Your task to perform on an android device: open app "Reddit" (install if not already installed), go to login, and select forgot password Image 0: 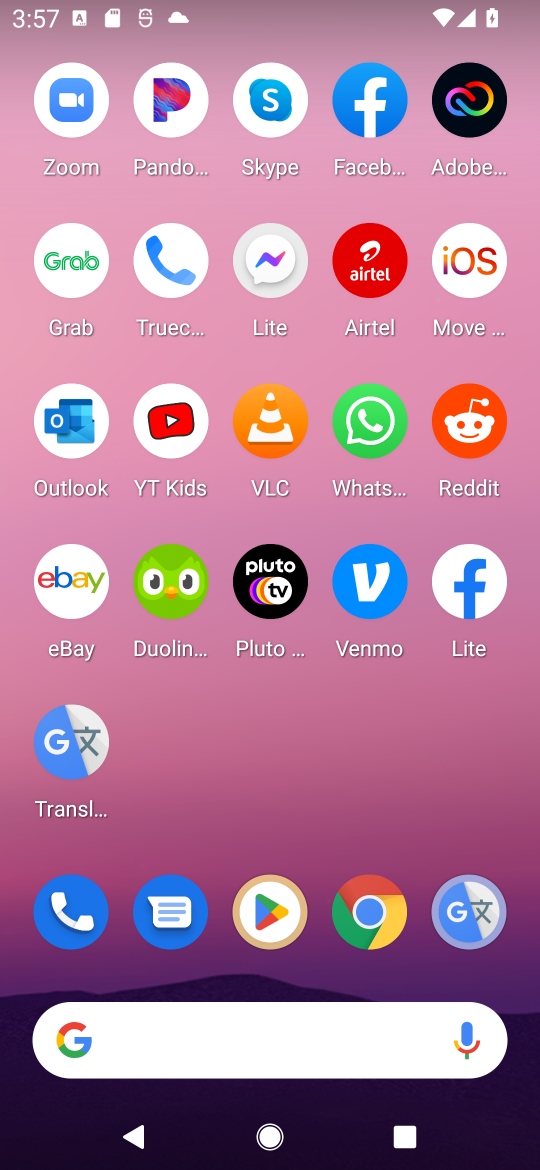
Step 0: drag from (230, 1060) to (284, 75)
Your task to perform on an android device: open app "Reddit" (install if not already installed), go to login, and select forgot password Image 1: 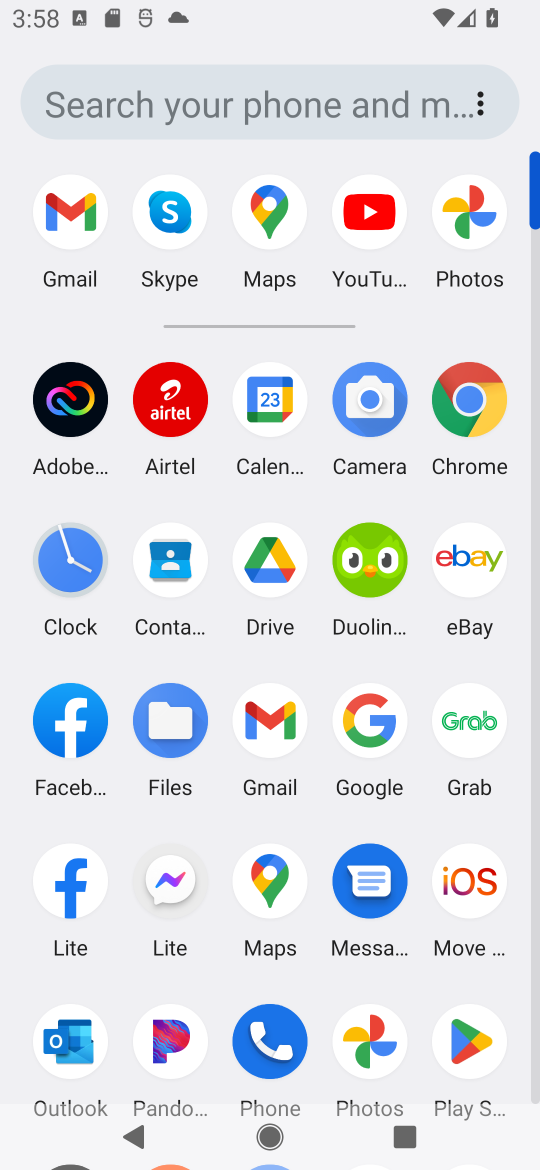
Step 1: click (473, 1044)
Your task to perform on an android device: open app "Reddit" (install if not already installed), go to login, and select forgot password Image 2: 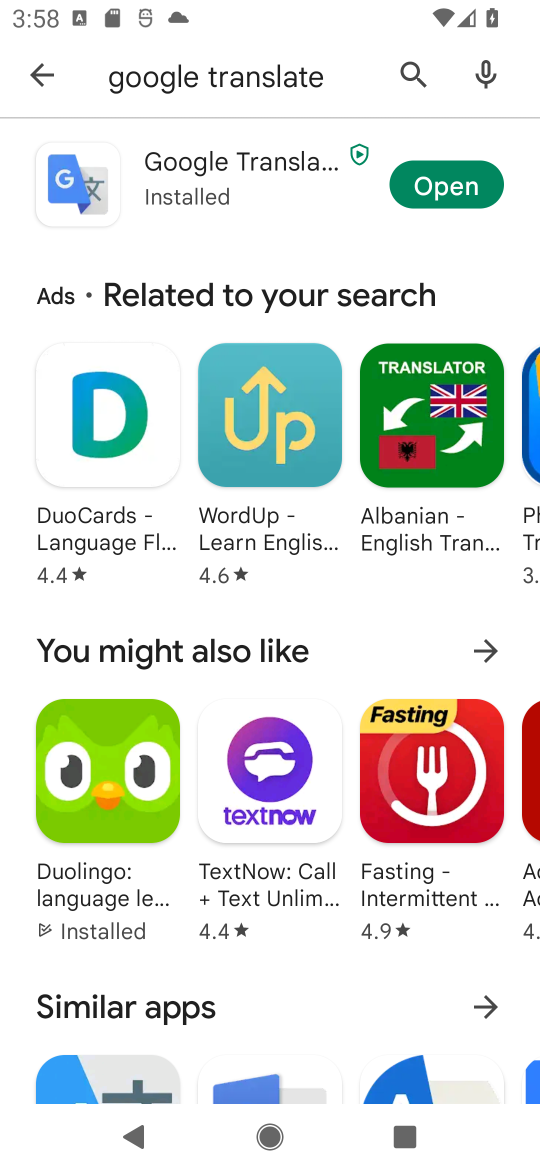
Step 2: press home button
Your task to perform on an android device: open app "Reddit" (install if not already installed), go to login, and select forgot password Image 3: 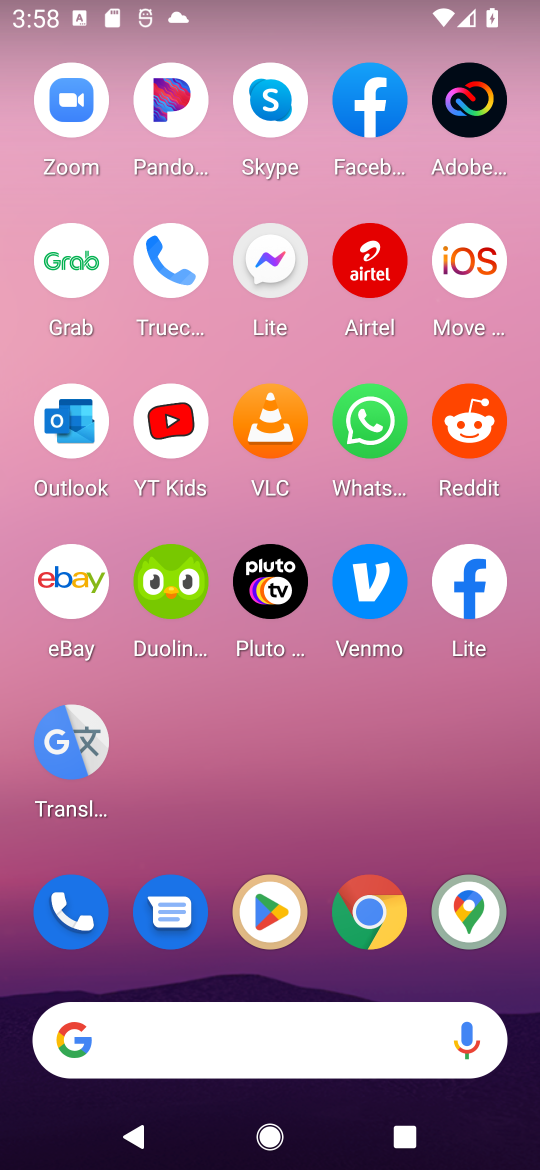
Step 3: drag from (169, 1047) to (273, 374)
Your task to perform on an android device: open app "Reddit" (install if not already installed), go to login, and select forgot password Image 4: 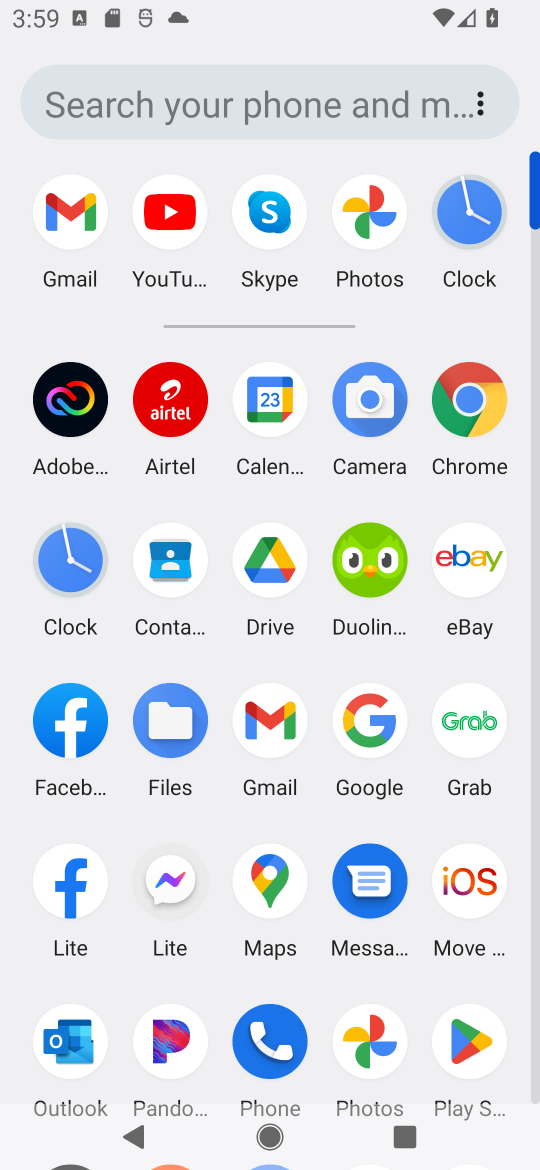
Step 4: click (470, 1043)
Your task to perform on an android device: open app "Reddit" (install if not already installed), go to login, and select forgot password Image 5: 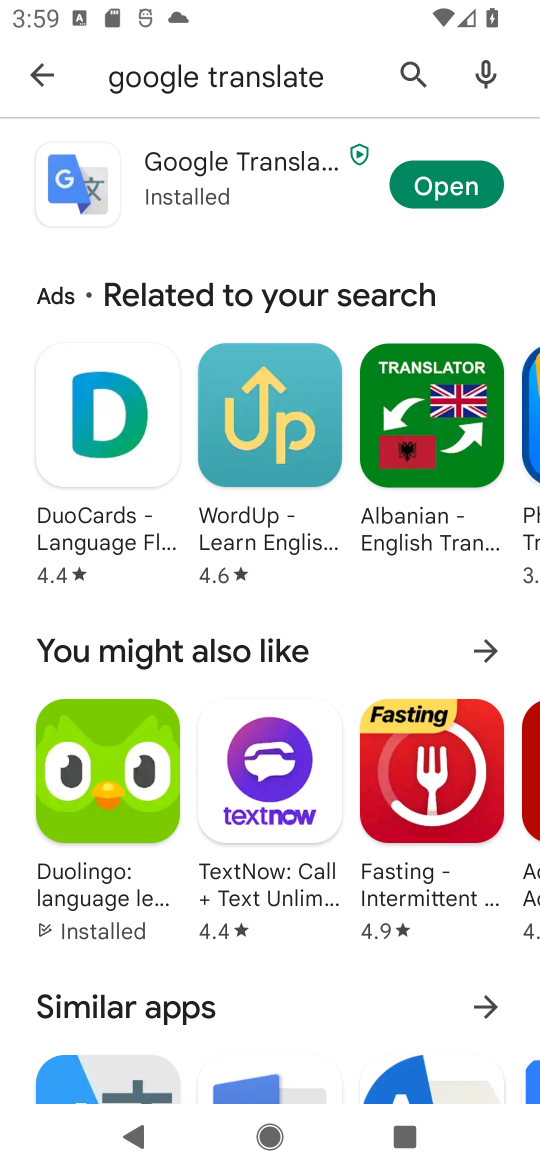
Step 5: press back button
Your task to perform on an android device: open app "Reddit" (install if not already installed), go to login, and select forgot password Image 6: 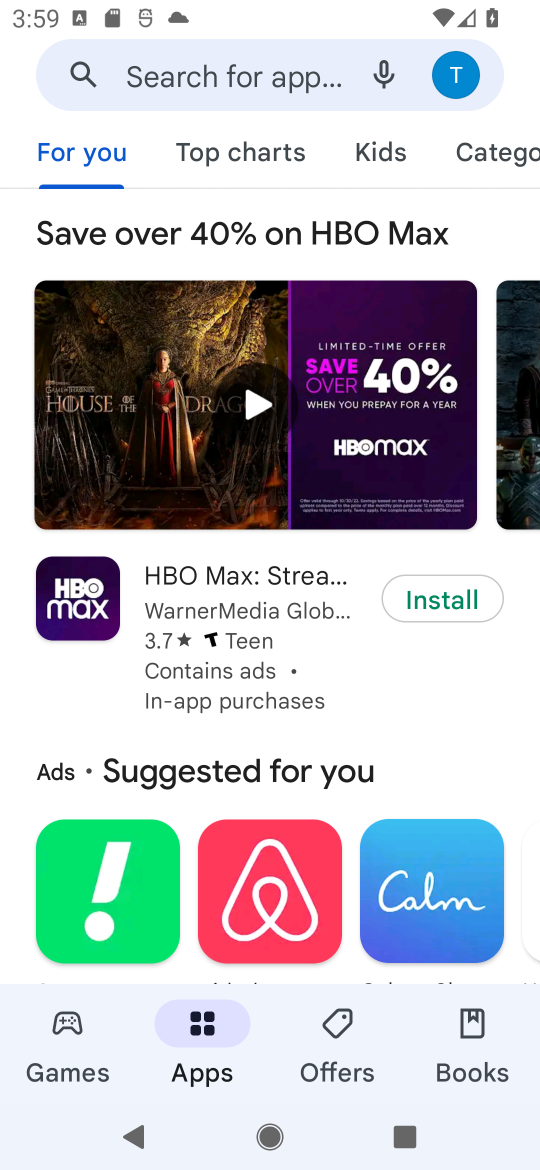
Step 6: click (280, 77)
Your task to perform on an android device: open app "Reddit" (install if not already installed), go to login, and select forgot password Image 7: 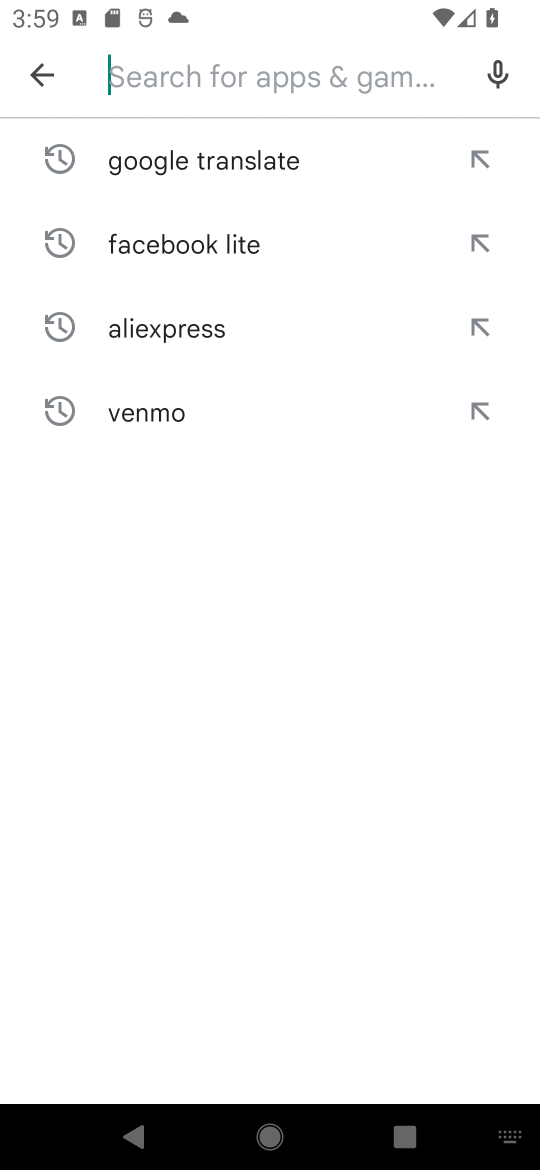
Step 7: type "Reddit"
Your task to perform on an android device: open app "Reddit" (install if not already installed), go to login, and select forgot password Image 8: 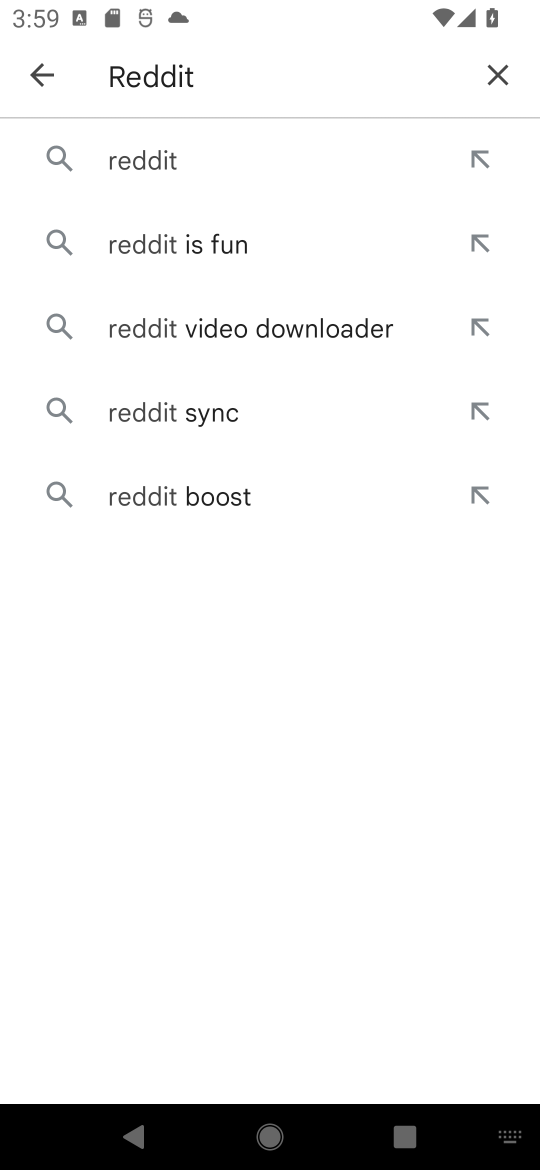
Step 8: click (171, 162)
Your task to perform on an android device: open app "Reddit" (install if not already installed), go to login, and select forgot password Image 9: 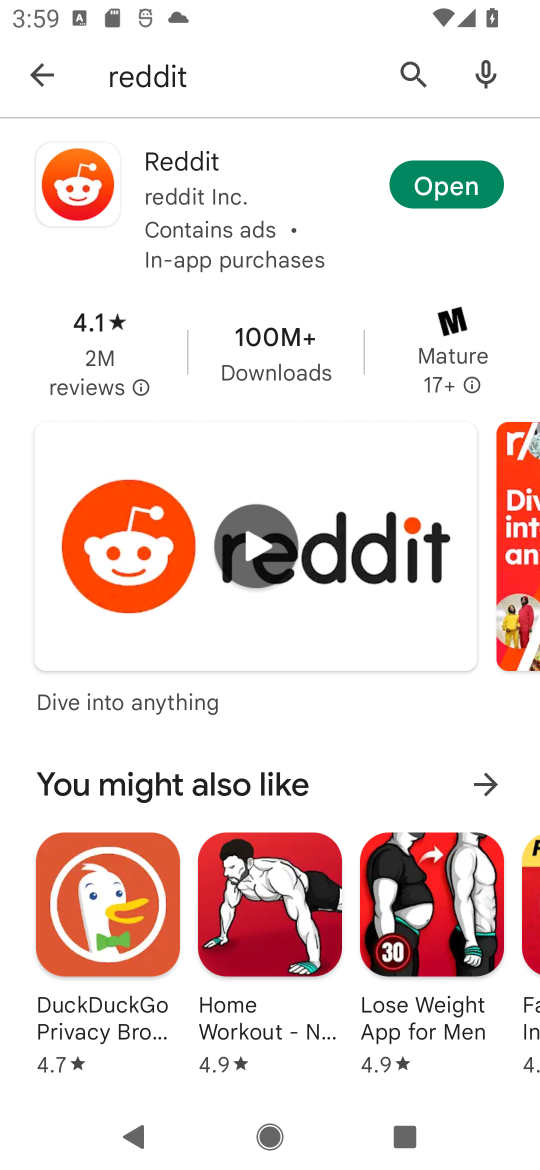
Step 9: click (423, 200)
Your task to perform on an android device: open app "Reddit" (install if not already installed), go to login, and select forgot password Image 10: 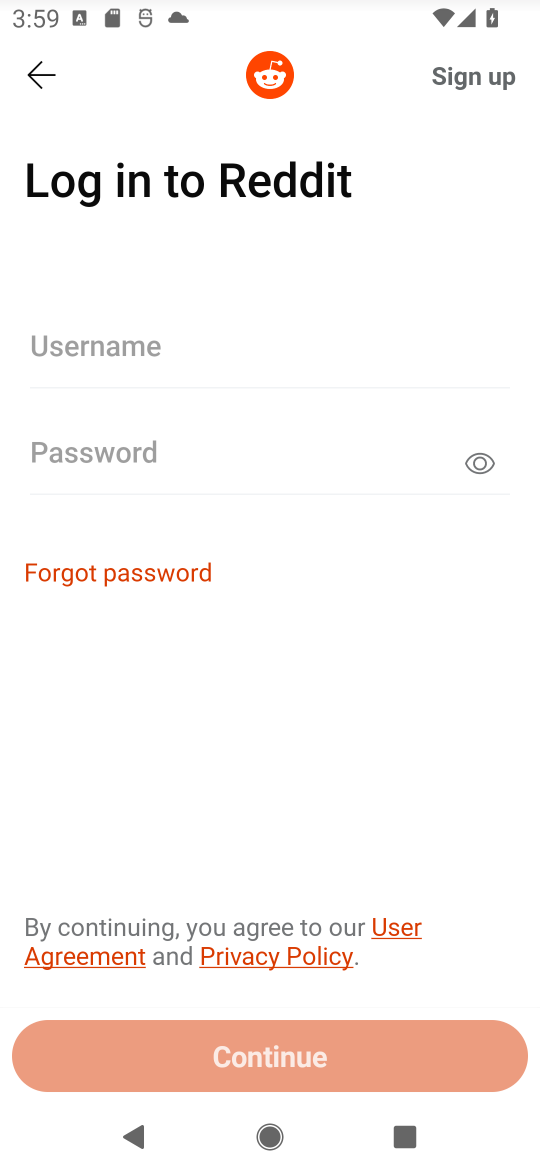
Step 10: click (167, 578)
Your task to perform on an android device: open app "Reddit" (install if not already installed), go to login, and select forgot password Image 11: 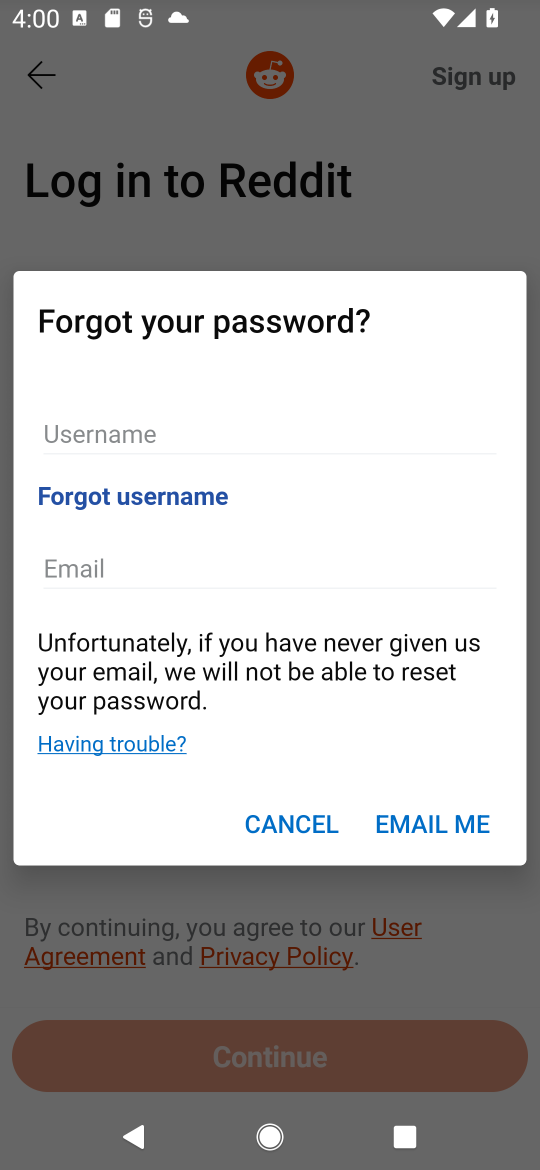
Step 11: task complete